Your task to perform on an android device: empty trash in google photos Image 0: 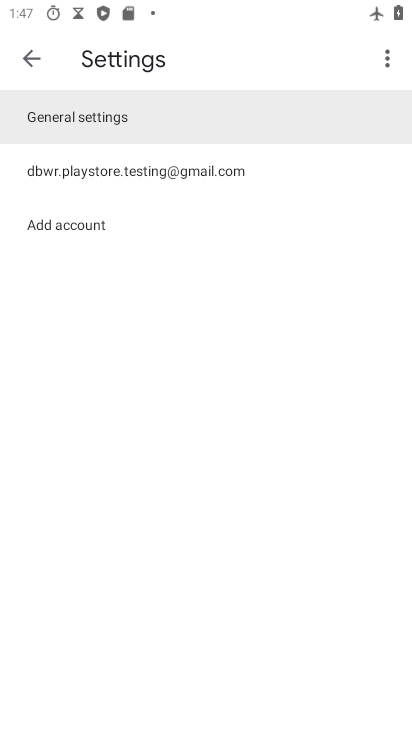
Step 0: press home button
Your task to perform on an android device: empty trash in google photos Image 1: 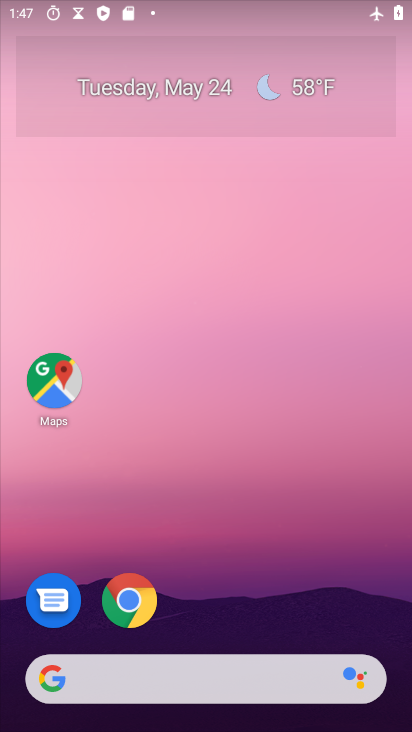
Step 1: drag from (280, 508) to (242, 11)
Your task to perform on an android device: empty trash in google photos Image 2: 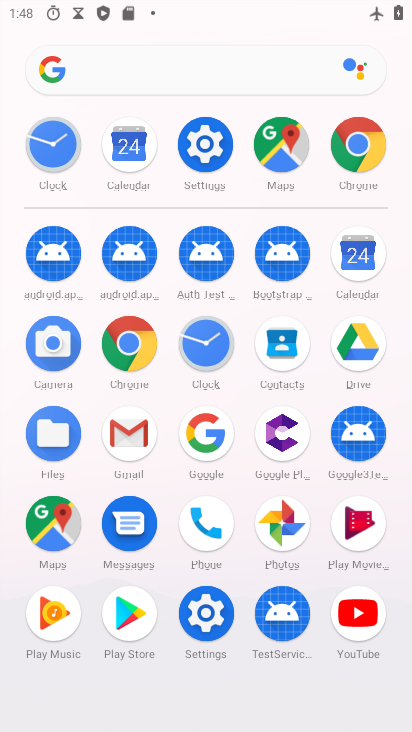
Step 2: click (297, 517)
Your task to perform on an android device: empty trash in google photos Image 3: 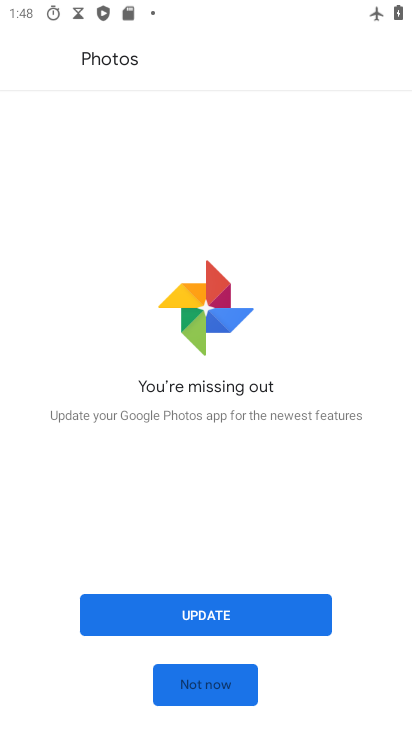
Step 3: click (237, 620)
Your task to perform on an android device: empty trash in google photos Image 4: 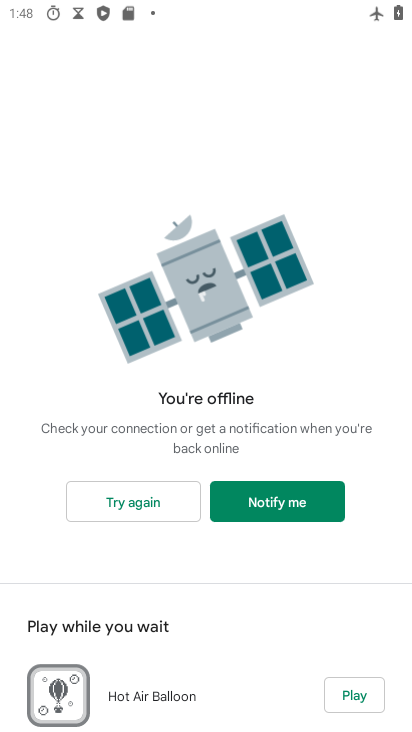
Step 4: click (150, 503)
Your task to perform on an android device: empty trash in google photos Image 5: 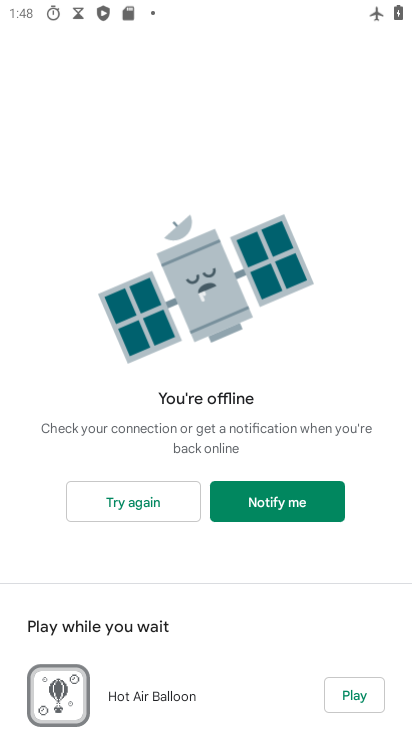
Step 5: task complete